Your task to perform on an android device: Open the Play Movies app and select the watchlist tab. Image 0: 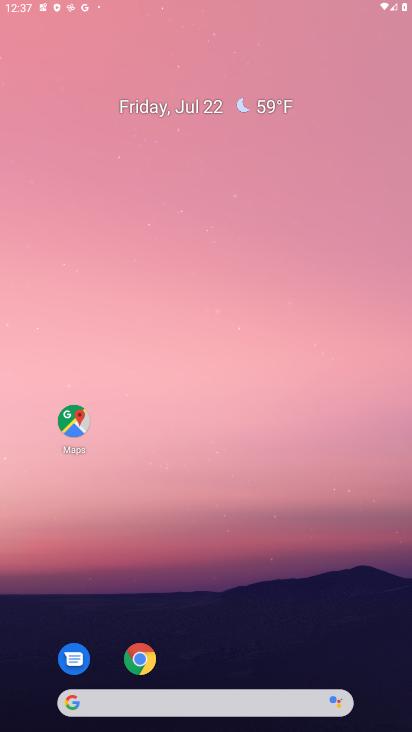
Step 0: drag from (268, 584) to (296, 68)
Your task to perform on an android device: Open the Play Movies app and select the watchlist tab. Image 1: 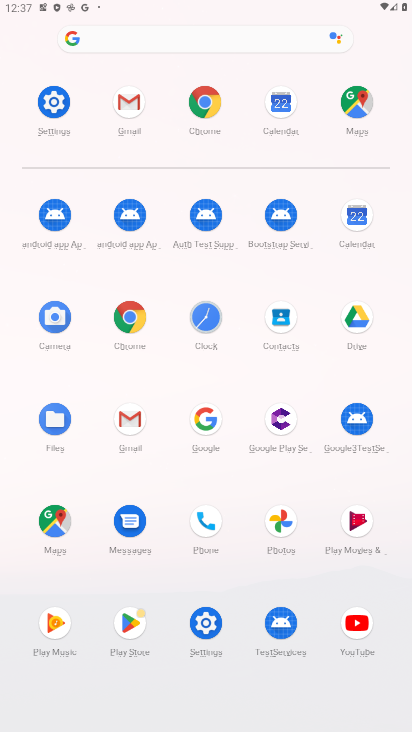
Step 1: click (360, 539)
Your task to perform on an android device: Open the Play Movies app and select the watchlist tab. Image 2: 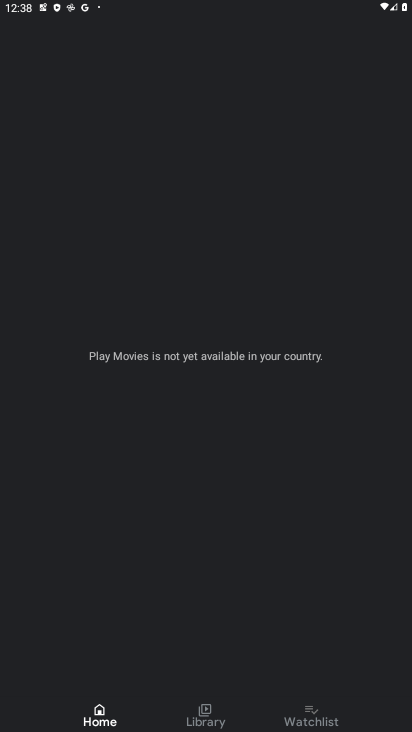
Step 2: click (314, 716)
Your task to perform on an android device: Open the Play Movies app and select the watchlist tab. Image 3: 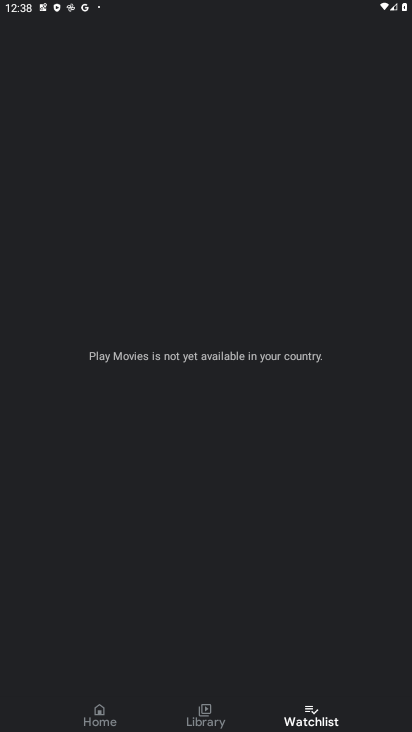
Step 3: task complete